Your task to perform on an android device: check google app version Image 0: 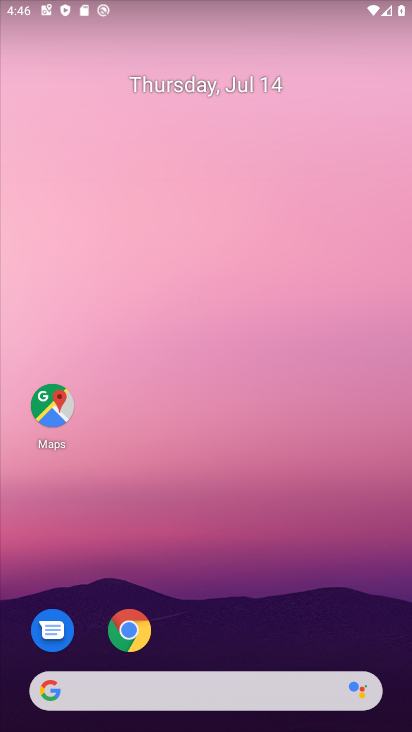
Step 0: drag from (240, 675) to (324, 0)
Your task to perform on an android device: check google app version Image 1: 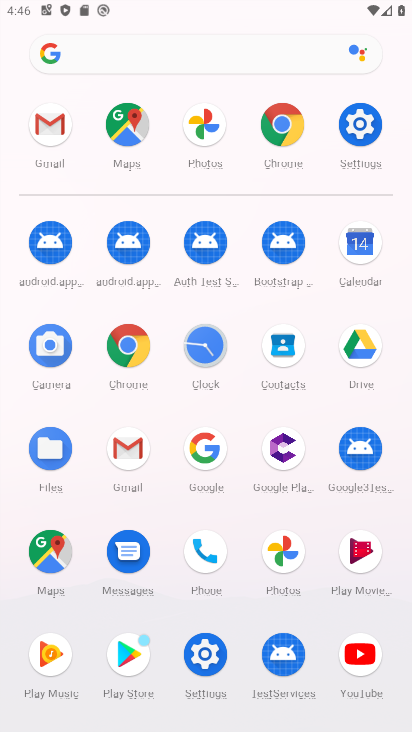
Step 1: click (135, 345)
Your task to perform on an android device: check google app version Image 2: 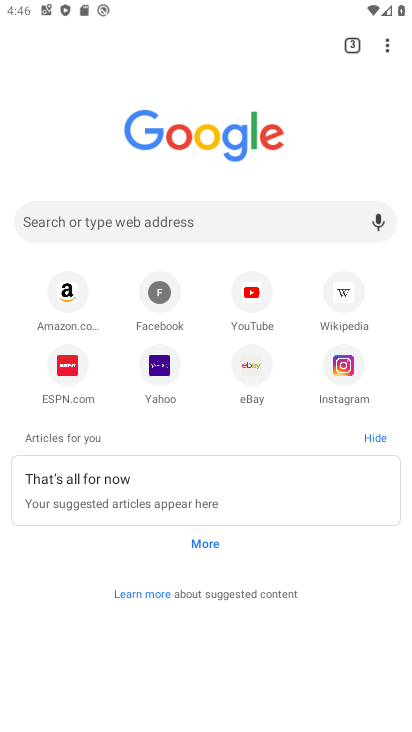
Step 2: click (387, 46)
Your task to perform on an android device: check google app version Image 3: 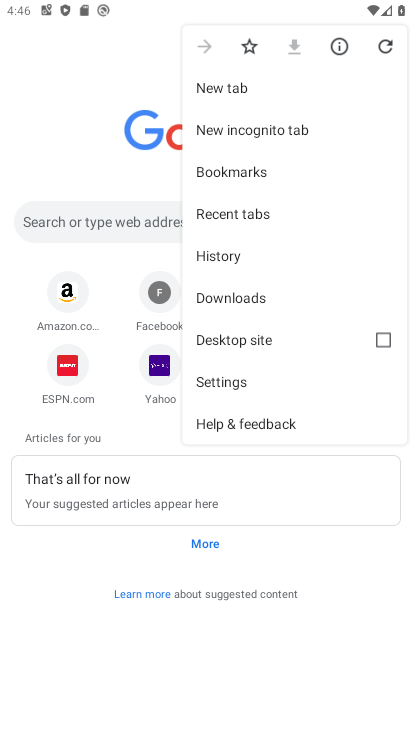
Step 3: click (265, 431)
Your task to perform on an android device: check google app version Image 4: 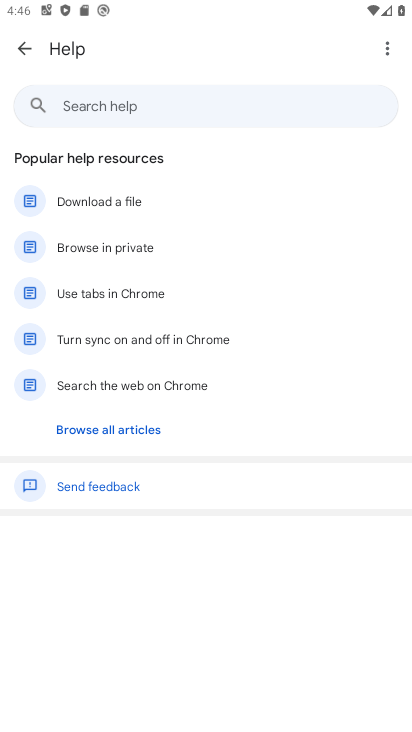
Step 4: click (385, 44)
Your task to perform on an android device: check google app version Image 5: 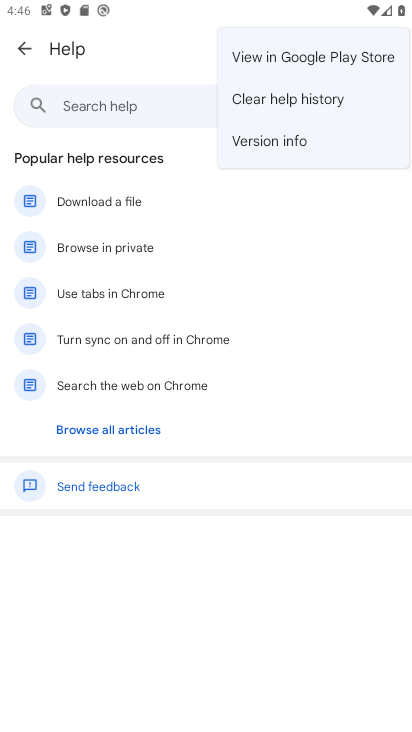
Step 5: click (308, 147)
Your task to perform on an android device: check google app version Image 6: 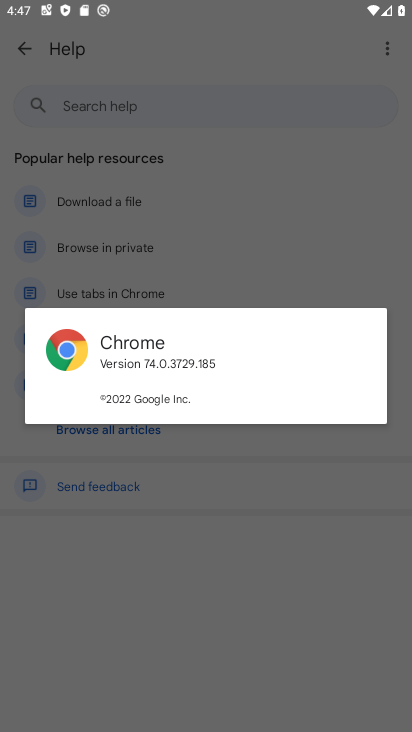
Step 6: task complete